Your task to perform on an android device: Open sound settings Image 0: 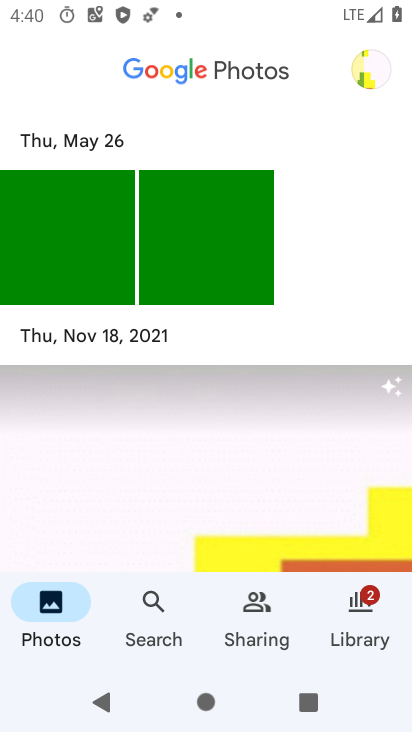
Step 0: press home button
Your task to perform on an android device: Open sound settings Image 1: 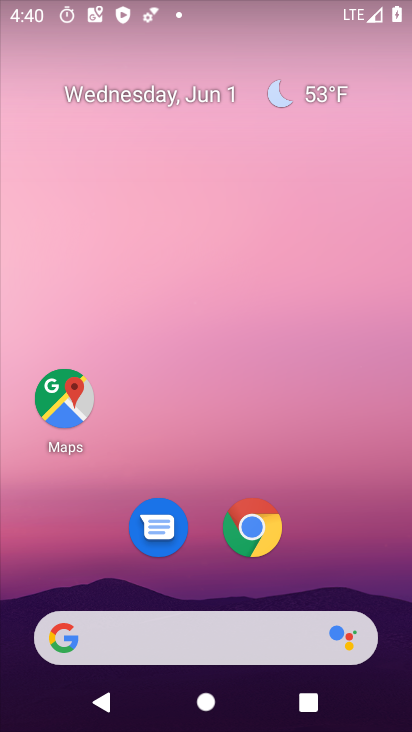
Step 1: drag from (321, 553) to (328, 115)
Your task to perform on an android device: Open sound settings Image 2: 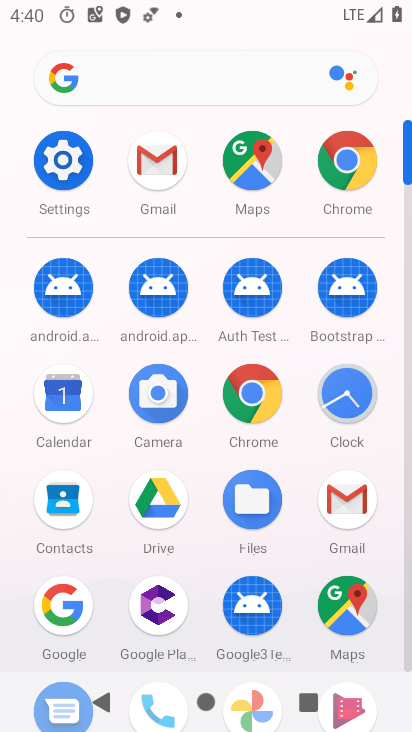
Step 2: click (63, 152)
Your task to perform on an android device: Open sound settings Image 3: 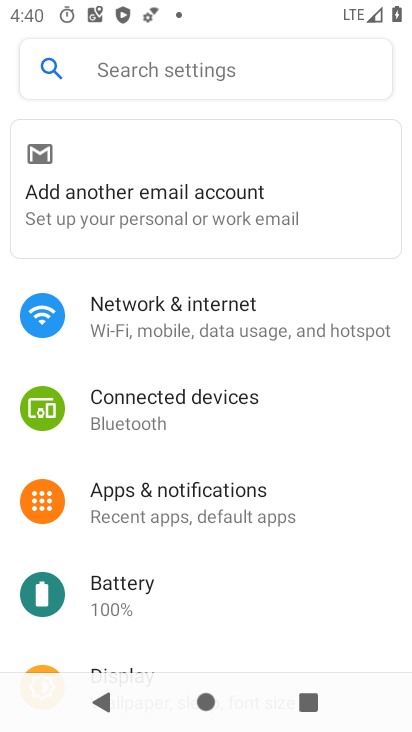
Step 3: drag from (288, 606) to (296, 143)
Your task to perform on an android device: Open sound settings Image 4: 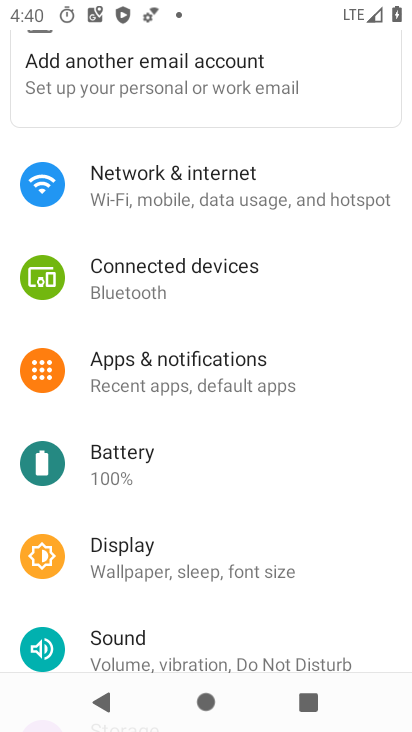
Step 4: click (111, 635)
Your task to perform on an android device: Open sound settings Image 5: 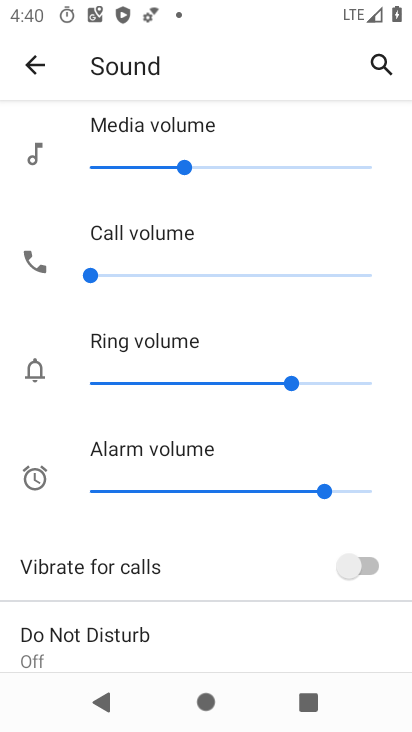
Step 5: task complete